Your task to perform on an android device: open app "Messenger Lite" (install if not already installed) and enter user name: "cataclysmic@outlook.com" and password: "victoriously" Image 0: 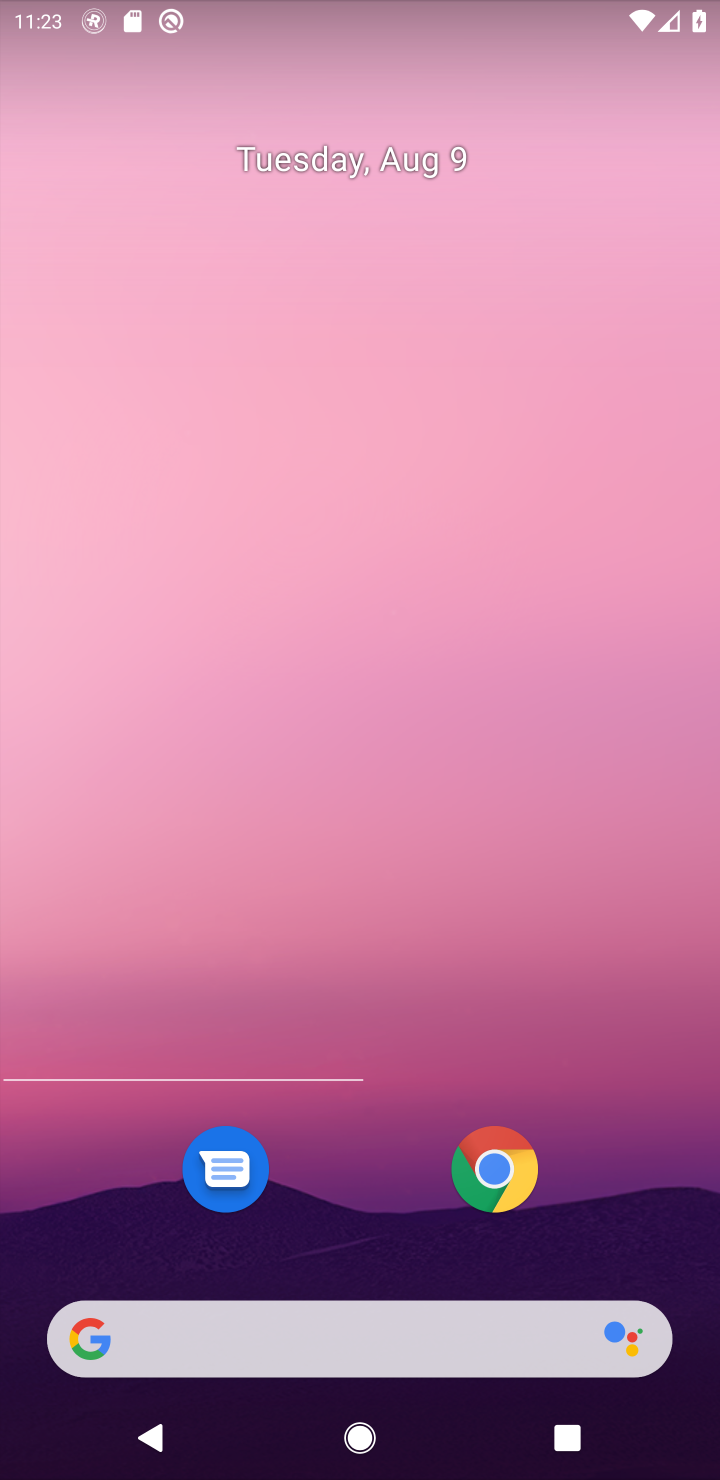
Step 0: press home button
Your task to perform on an android device: open app "Messenger Lite" (install if not already installed) and enter user name: "cataclysmic@outlook.com" and password: "victoriously" Image 1: 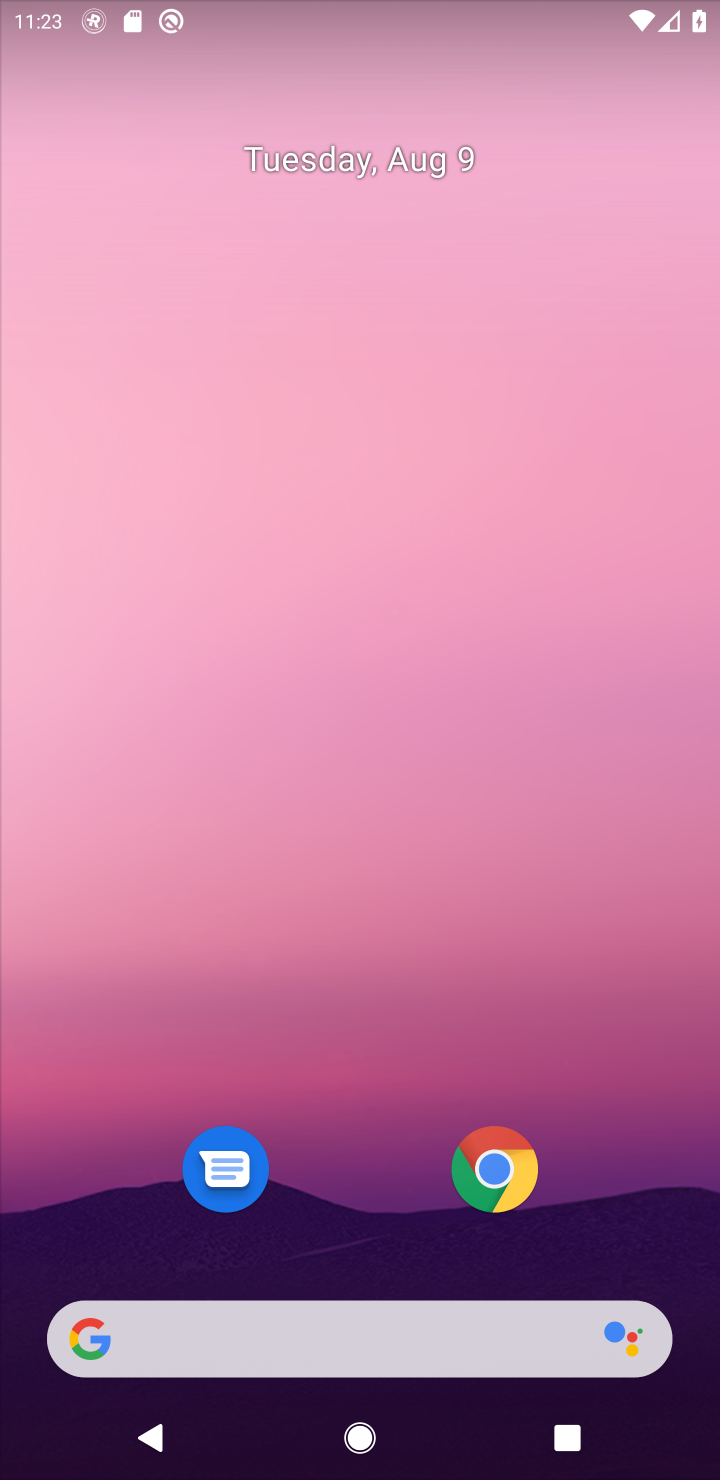
Step 1: drag from (599, 1186) to (610, 92)
Your task to perform on an android device: open app "Messenger Lite" (install if not already installed) and enter user name: "cataclysmic@outlook.com" and password: "victoriously" Image 2: 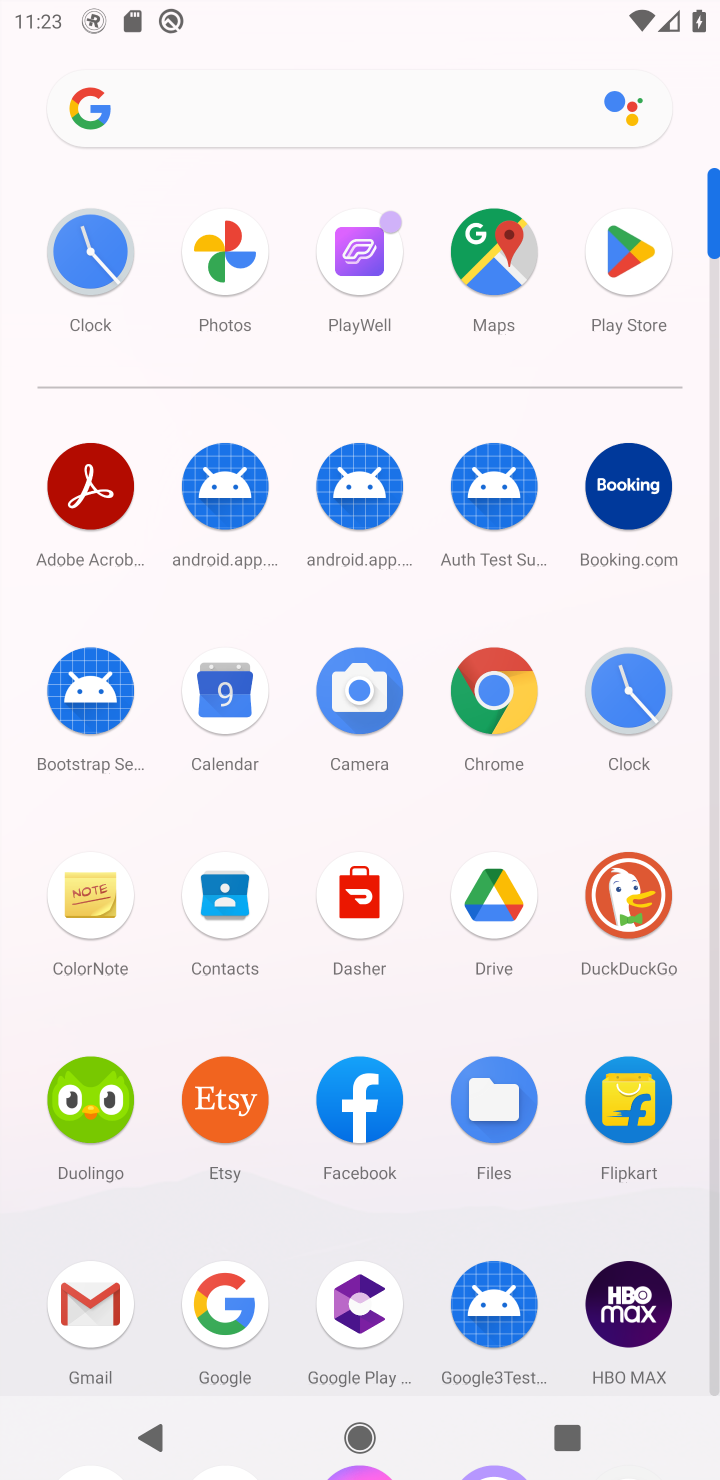
Step 2: click (629, 252)
Your task to perform on an android device: open app "Messenger Lite" (install if not already installed) and enter user name: "cataclysmic@outlook.com" and password: "victoriously" Image 3: 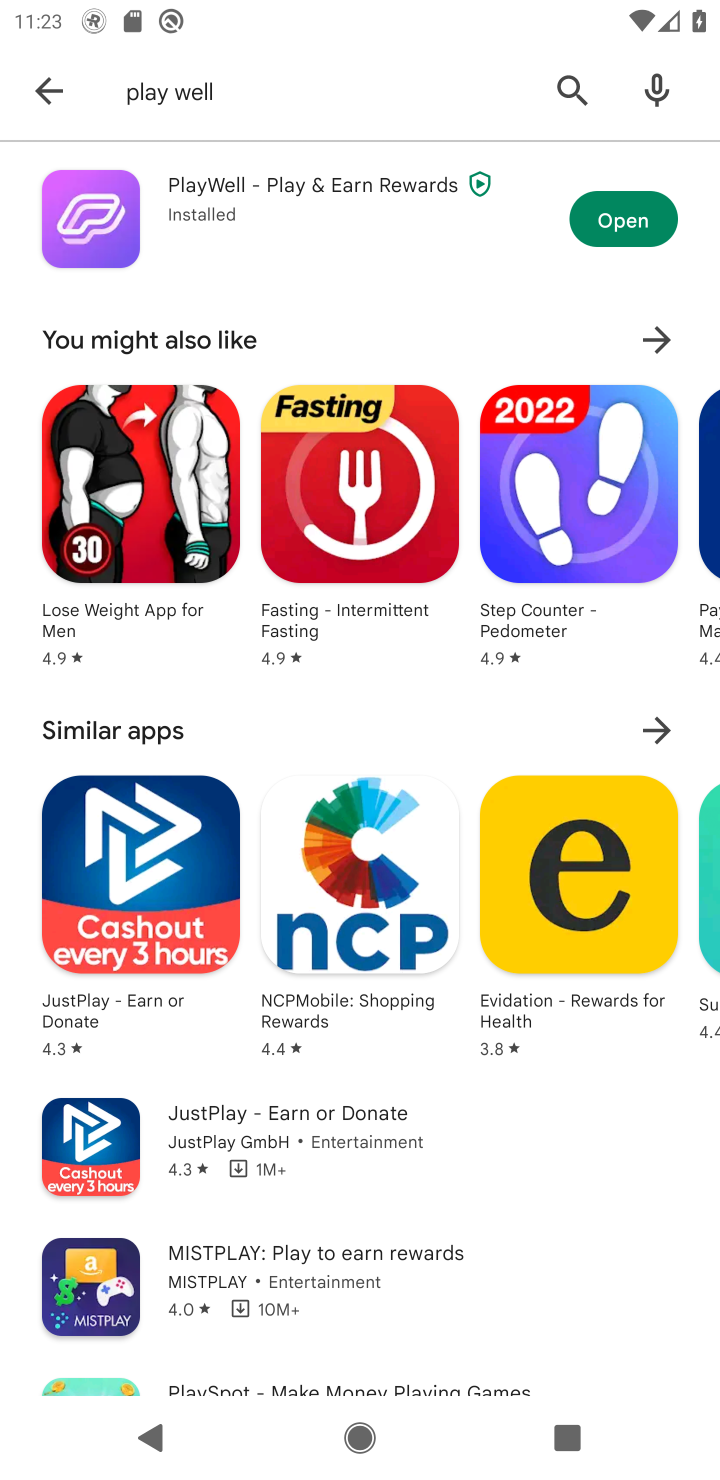
Step 3: click (566, 79)
Your task to perform on an android device: open app "Messenger Lite" (install if not already installed) and enter user name: "cataclysmic@outlook.com" and password: "victoriously" Image 4: 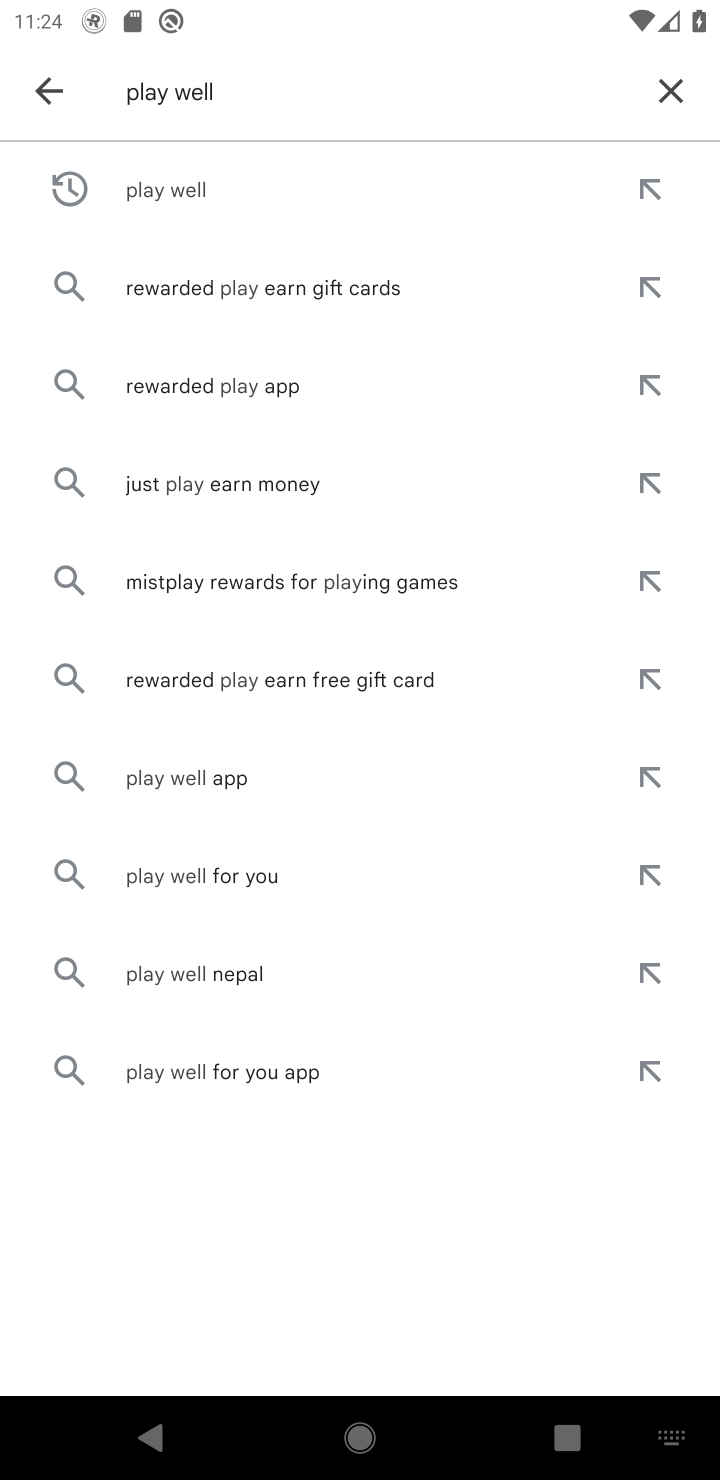
Step 4: click (671, 94)
Your task to perform on an android device: open app "Messenger Lite" (install if not already installed) and enter user name: "cataclysmic@outlook.com" and password: "victoriously" Image 5: 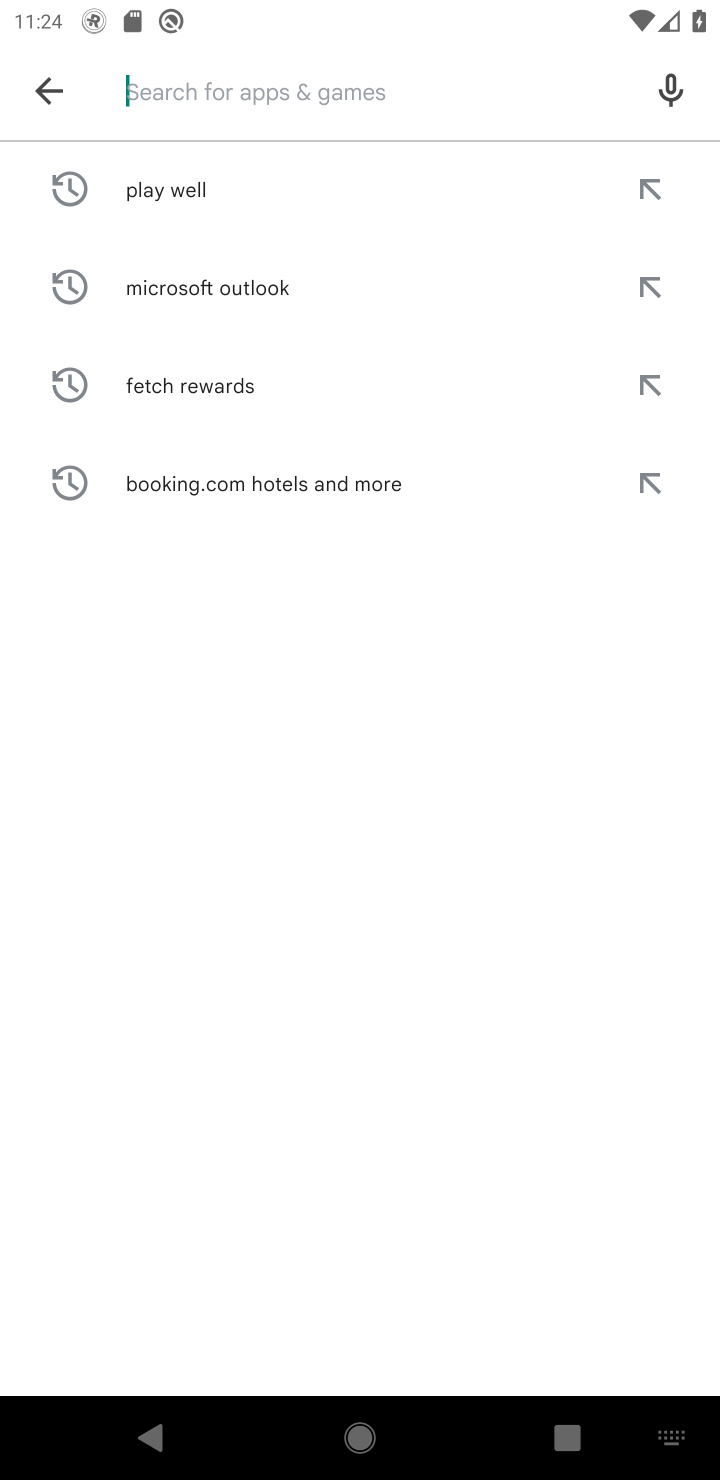
Step 5: click (266, 78)
Your task to perform on an android device: open app "Messenger Lite" (install if not already installed) and enter user name: "cataclysmic@outlook.com" and password: "victoriously" Image 6: 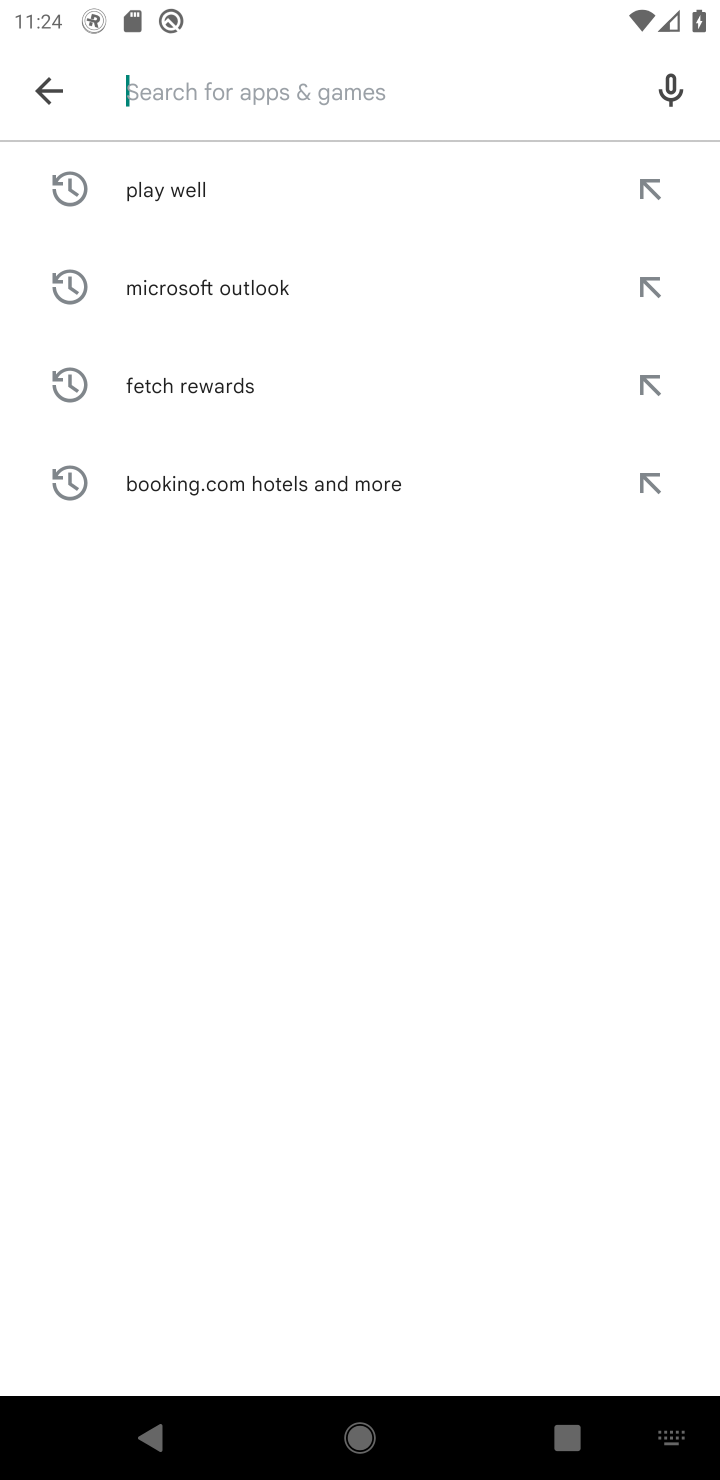
Step 6: type "messenger lite "
Your task to perform on an android device: open app "Messenger Lite" (install if not already installed) and enter user name: "cataclysmic@outlook.com" and password: "victoriously" Image 7: 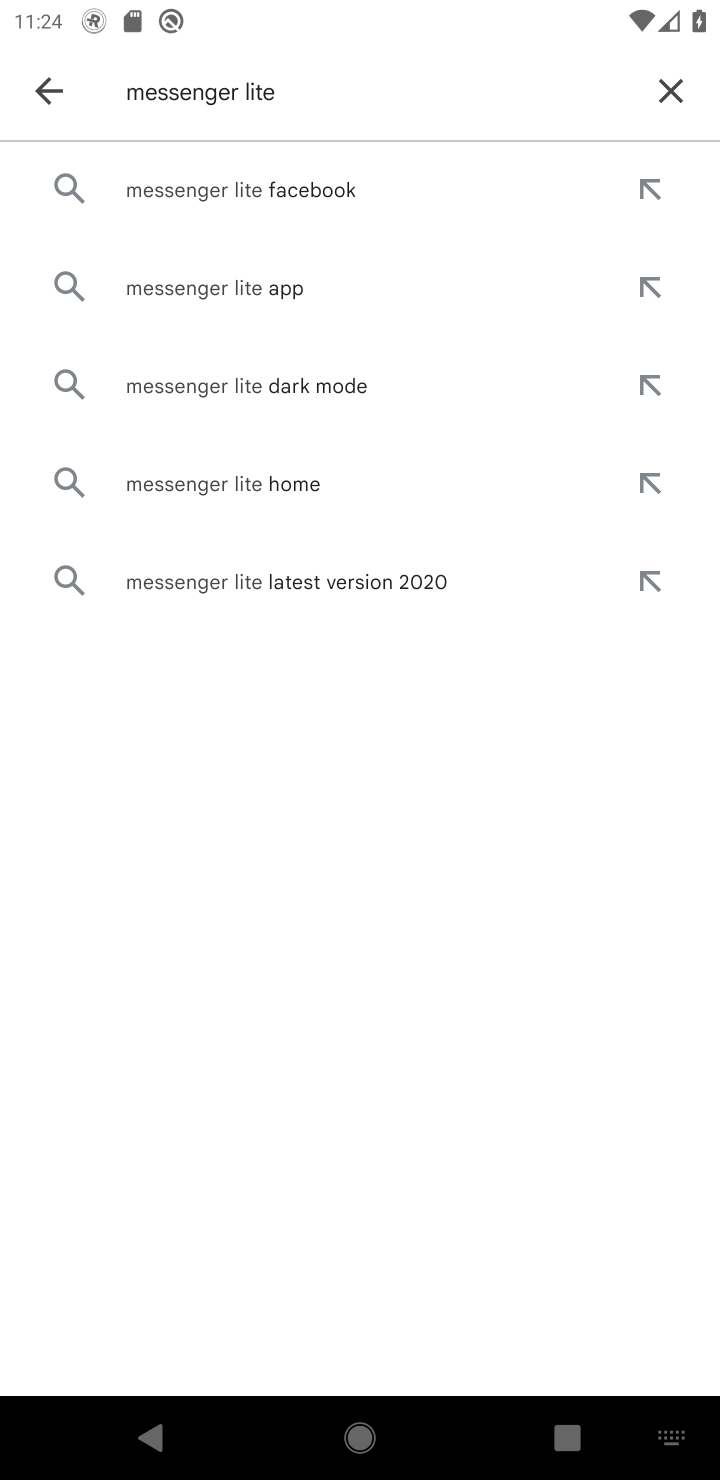
Step 7: click (298, 282)
Your task to perform on an android device: open app "Messenger Lite" (install if not already installed) and enter user name: "cataclysmic@outlook.com" and password: "victoriously" Image 8: 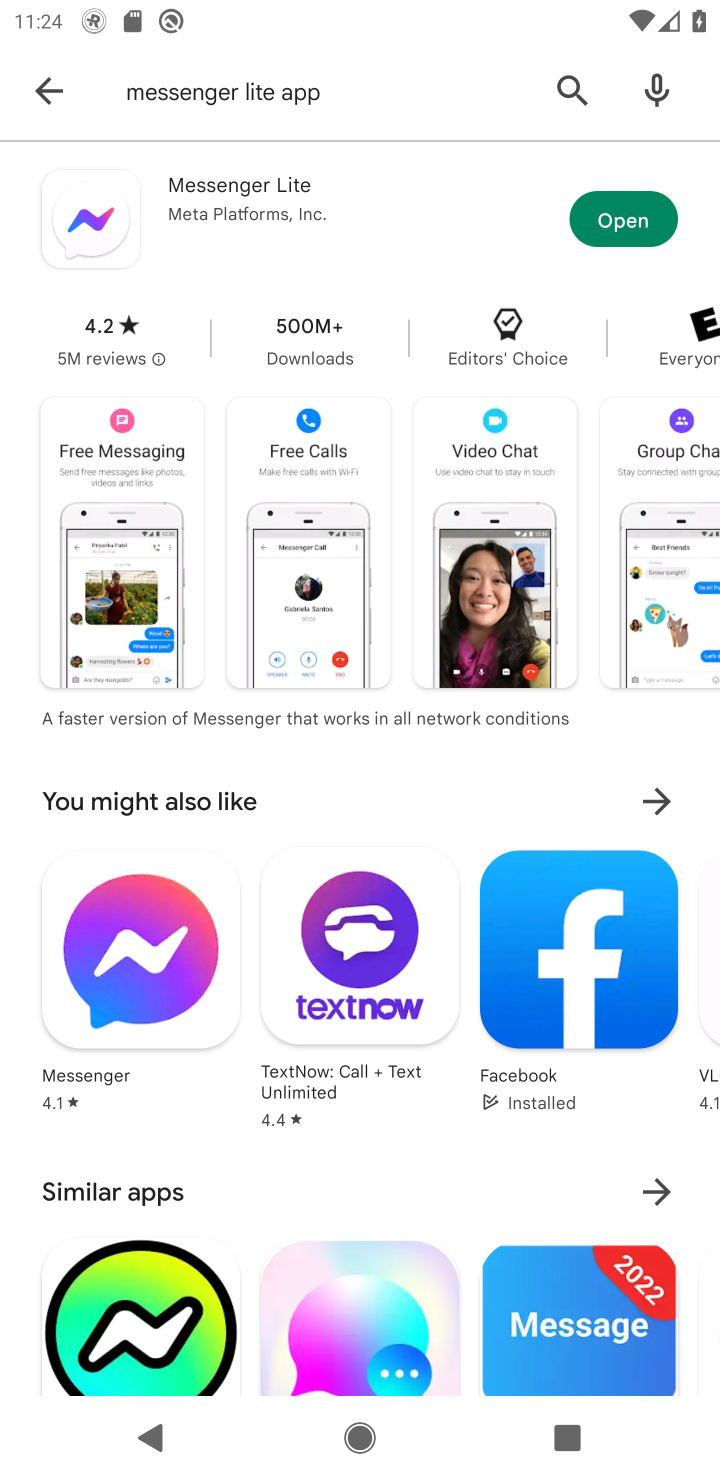
Step 8: click (614, 222)
Your task to perform on an android device: open app "Messenger Lite" (install if not already installed) and enter user name: "cataclysmic@outlook.com" and password: "victoriously" Image 9: 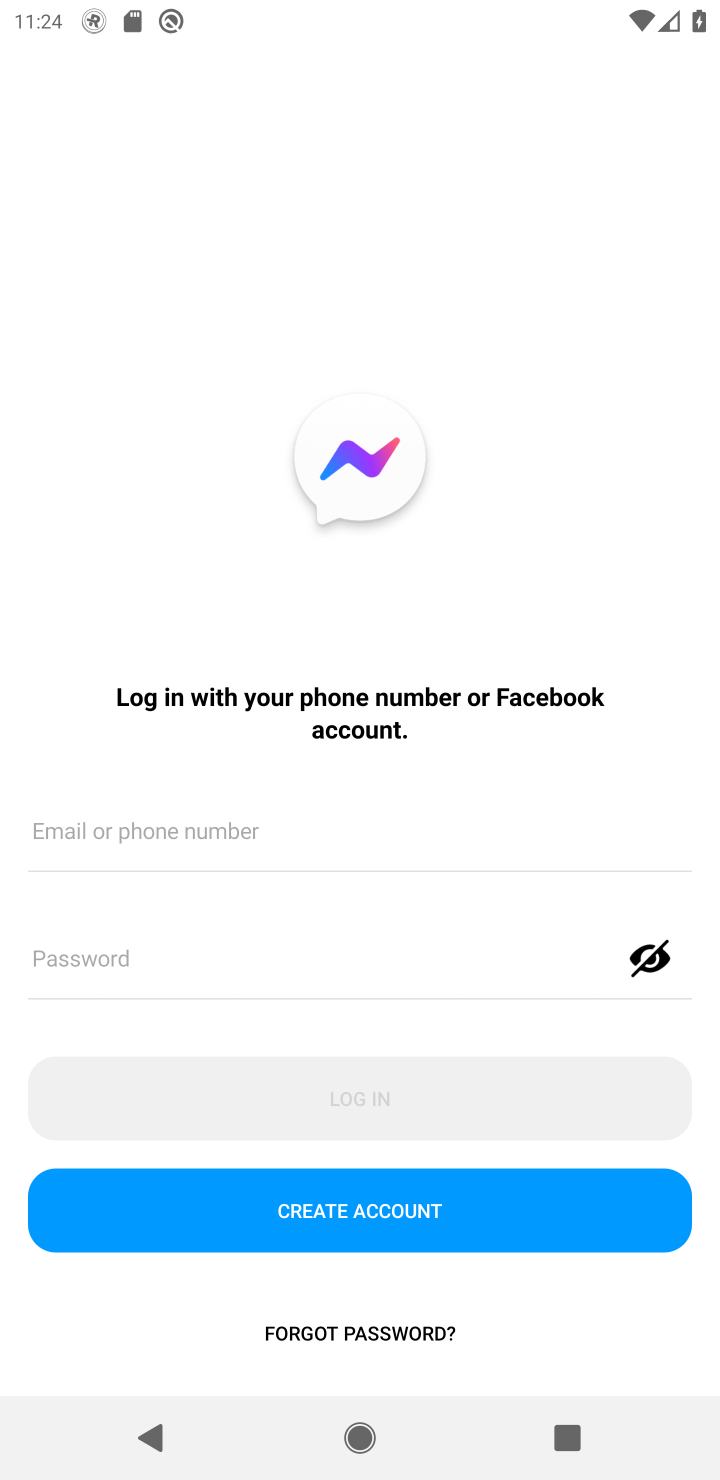
Step 9: click (240, 822)
Your task to perform on an android device: open app "Messenger Lite" (install if not already installed) and enter user name: "cataclysmic@outlook.com" and password: "victoriously" Image 10: 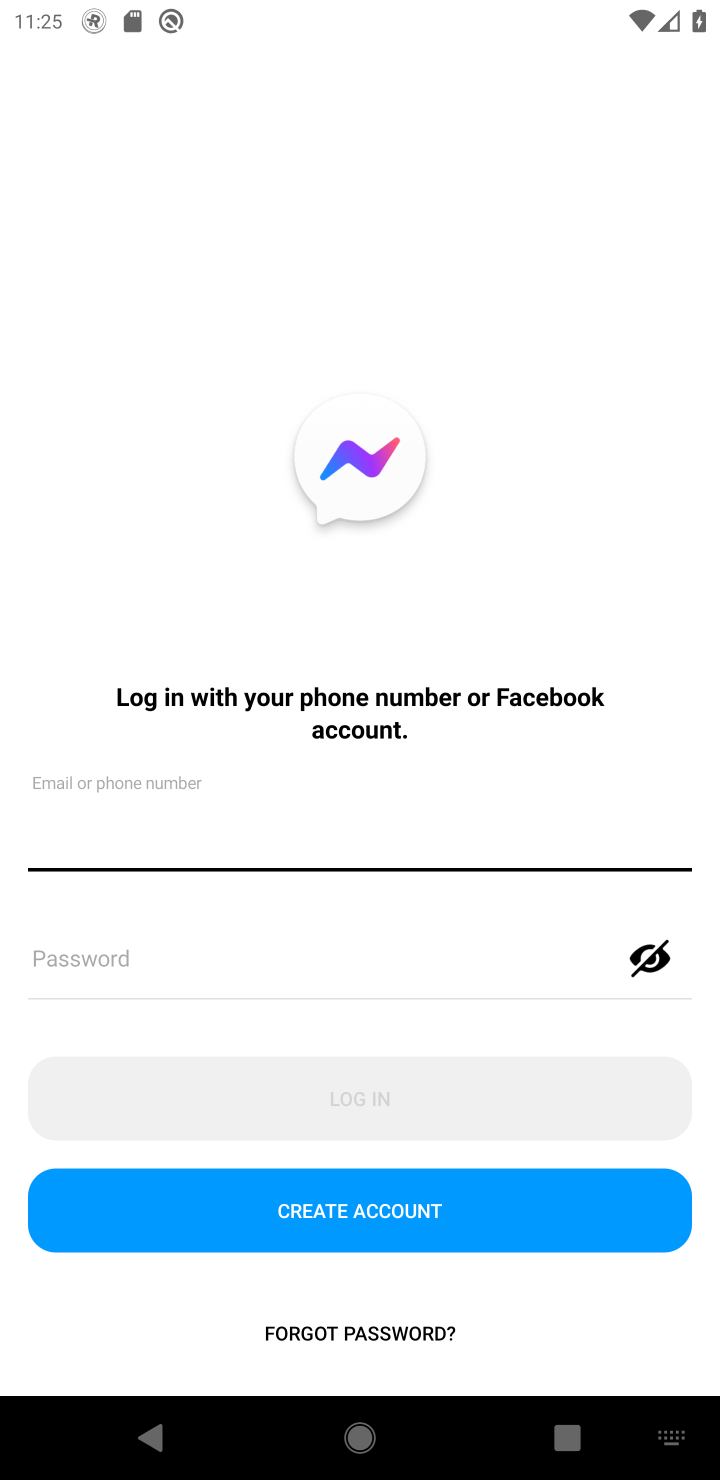
Step 10: type "cataclysmic@outlook.com"
Your task to perform on an android device: open app "Messenger Lite" (install if not already installed) and enter user name: "cataclysmic@outlook.com" and password: "victoriously" Image 11: 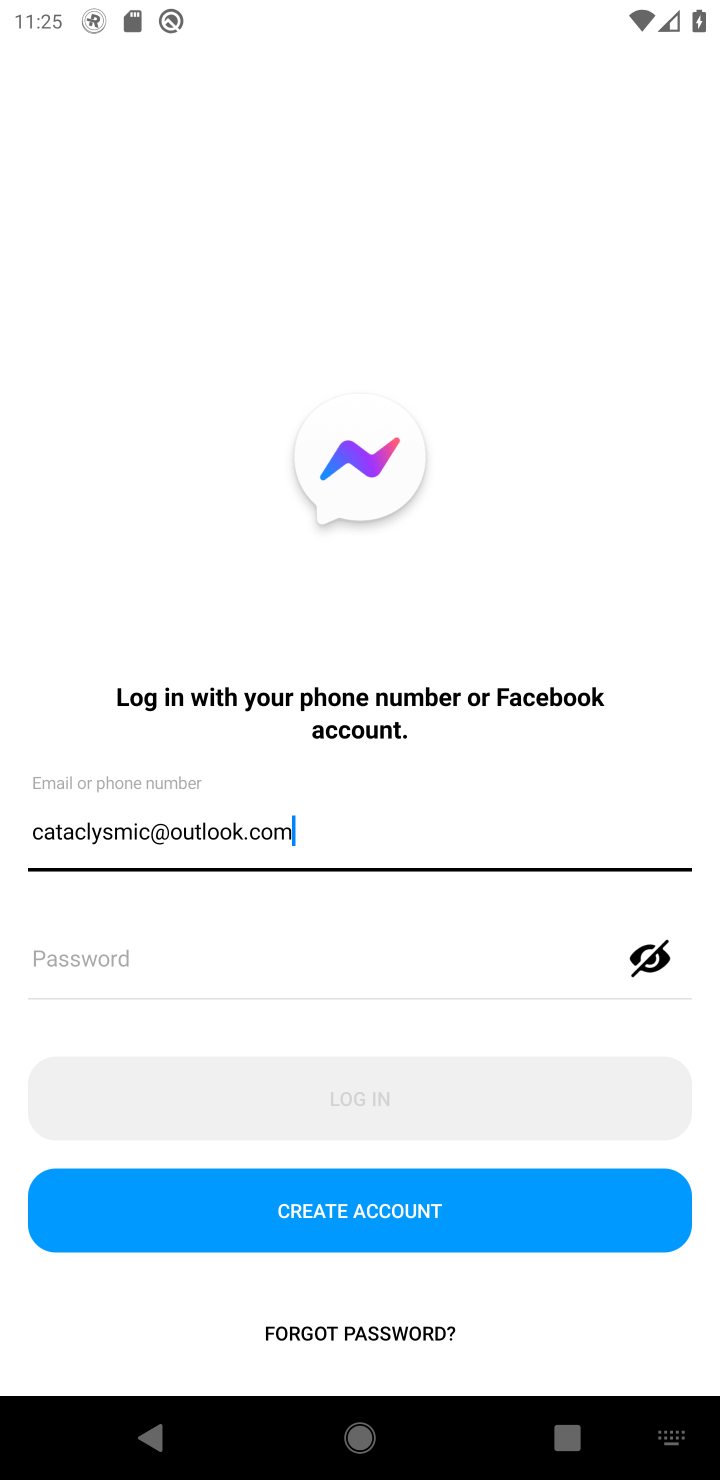
Step 11: click (251, 967)
Your task to perform on an android device: open app "Messenger Lite" (install if not already installed) and enter user name: "cataclysmic@outlook.com" and password: "victoriously" Image 12: 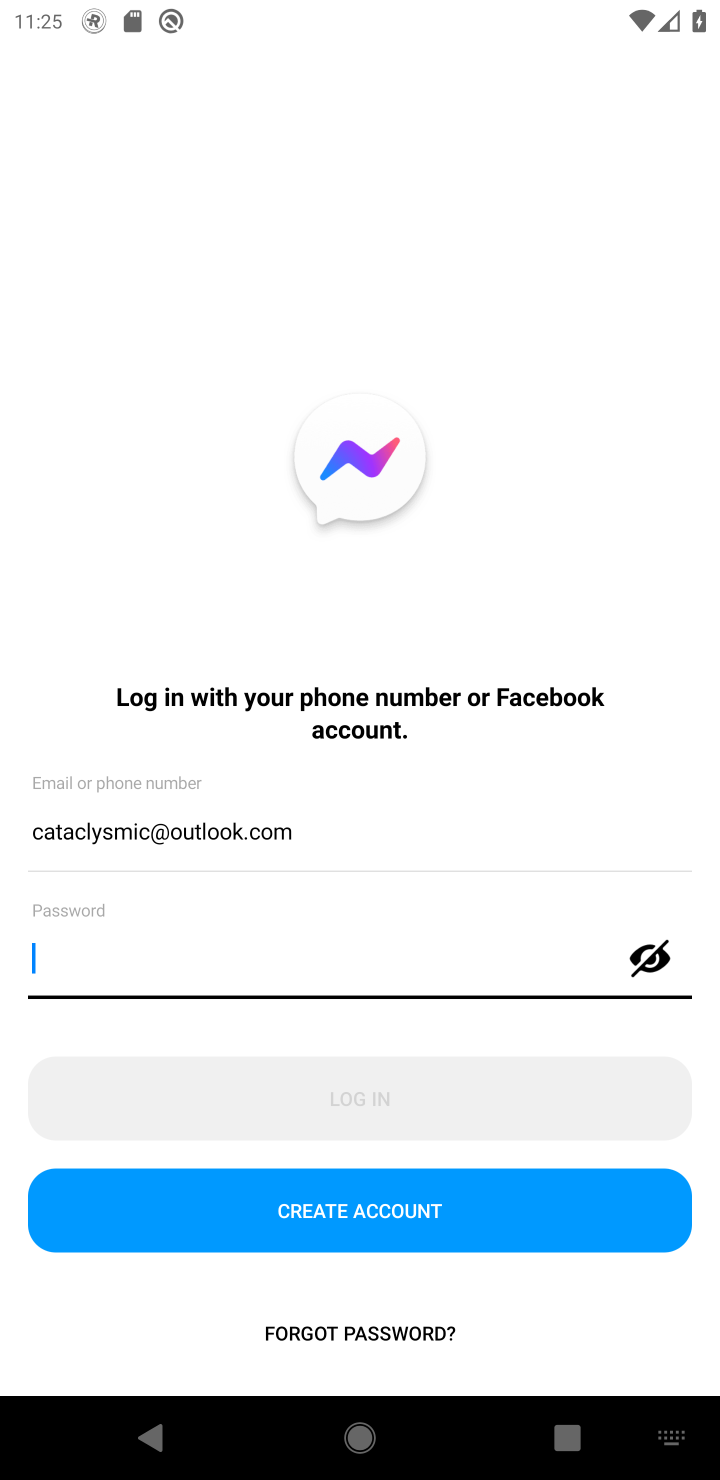
Step 12: press enter
Your task to perform on an android device: open app "Messenger Lite" (install if not already installed) and enter user name: "cataclysmic@outlook.com" and password: "victoriously" Image 13: 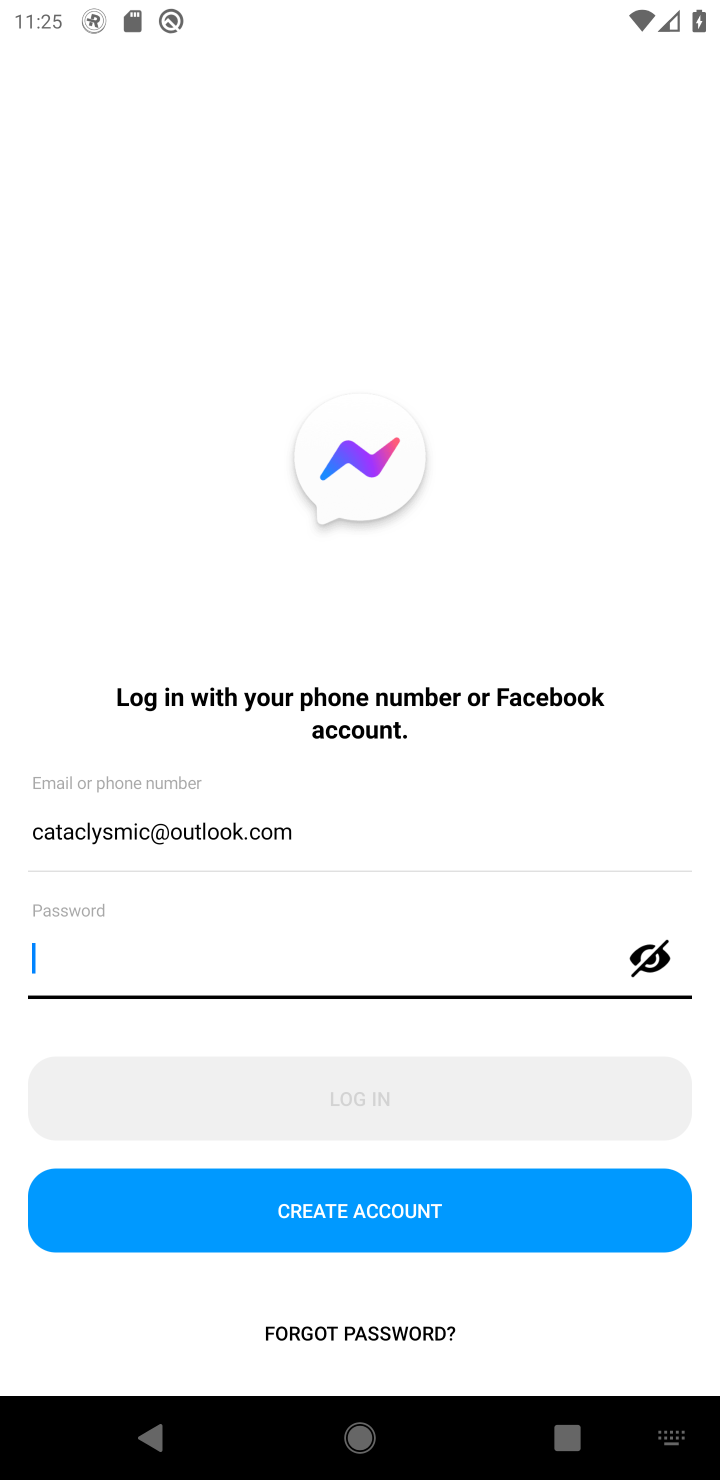
Step 13: type "victoriously"
Your task to perform on an android device: open app "Messenger Lite" (install if not already installed) and enter user name: "cataclysmic@outlook.com" and password: "victoriously" Image 14: 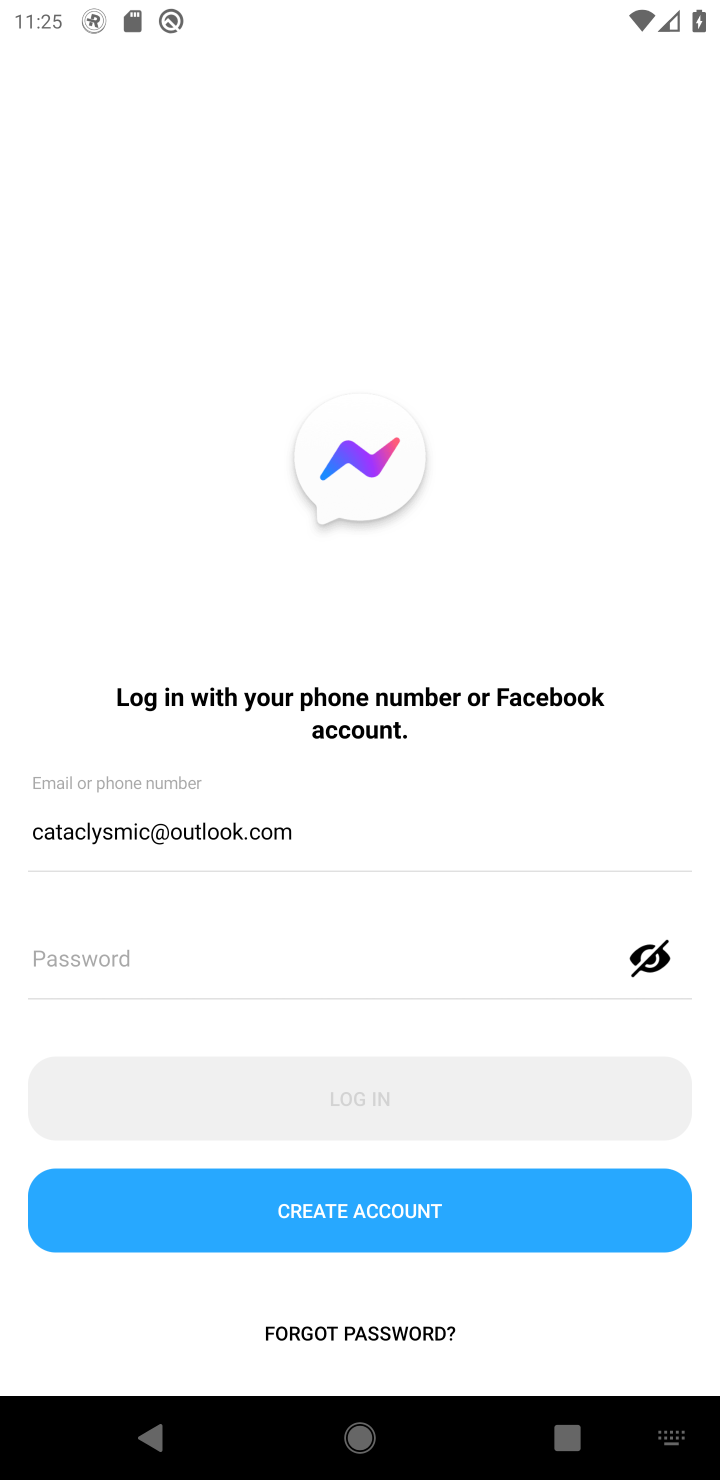
Step 14: task complete